Your task to perform on an android device: turn on data saver in the chrome app Image 0: 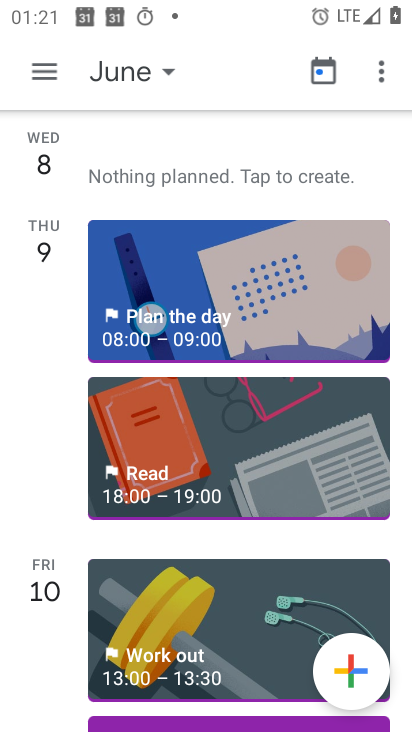
Step 0: press home button
Your task to perform on an android device: turn on data saver in the chrome app Image 1: 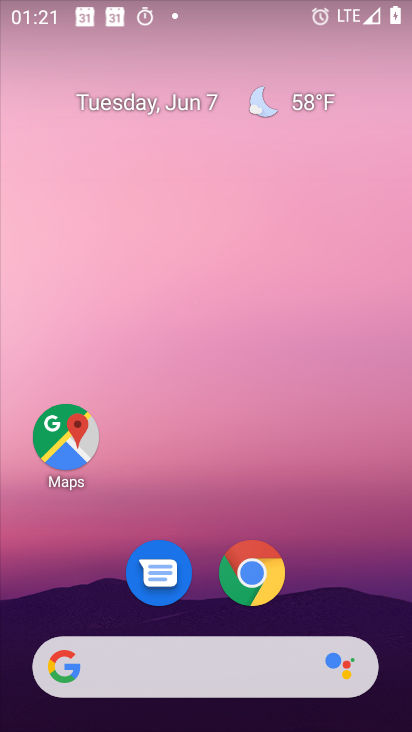
Step 1: click (260, 561)
Your task to perform on an android device: turn on data saver in the chrome app Image 2: 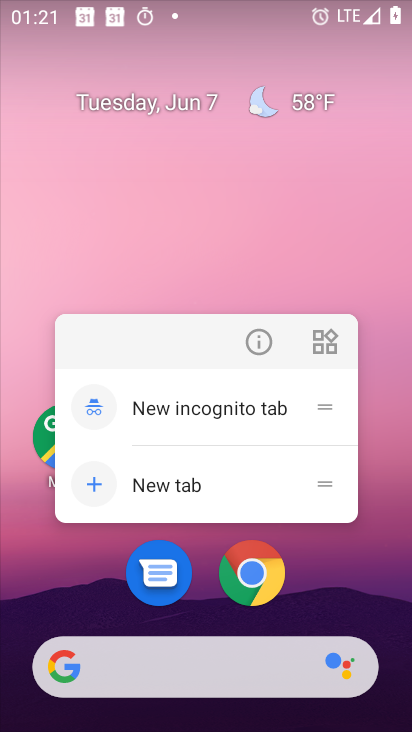
Step 2: click (246, 576)
Your task to perform on an android device: turn on data saver in the chrome app Image 3: 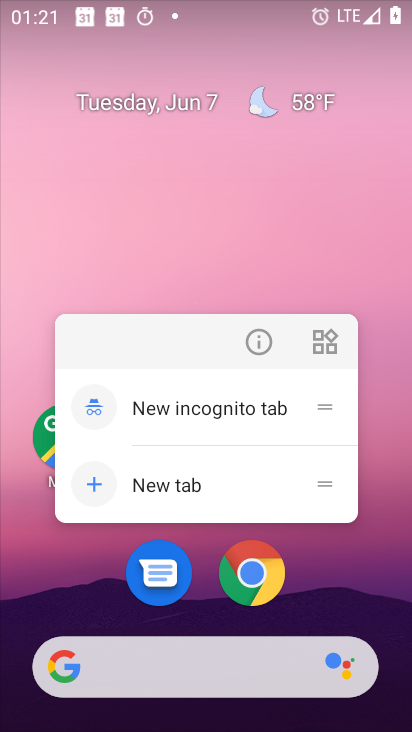
Step 3: click (291, 570)
Your task to perform on an android device: turn on data saver in the chrome app Image 4: 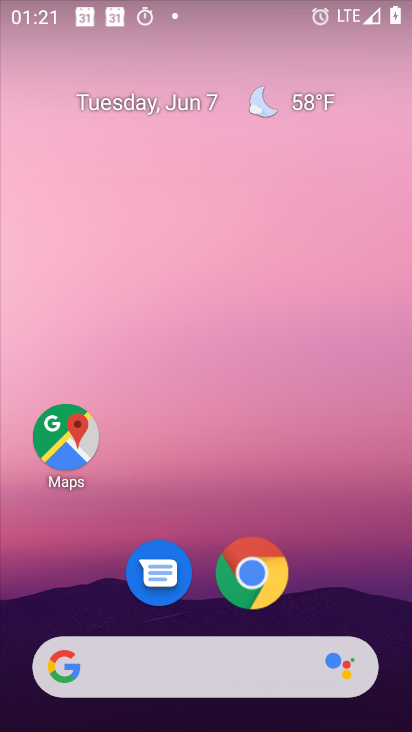
Step 4: drag from (295, 597) to (317, 120)
Your task to perform on an android device: turn on data saver in the chrome app Image 5: 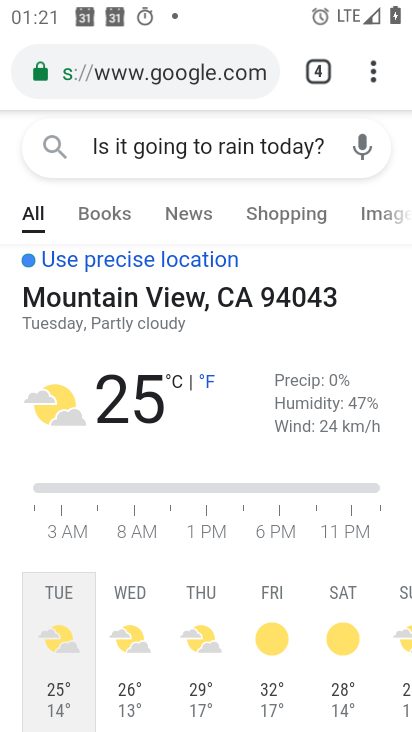
Step 5: drag from (373, 68) to (151, 569)
Your task to perform on an android device: turn on data saver in the chrome app Image 6: 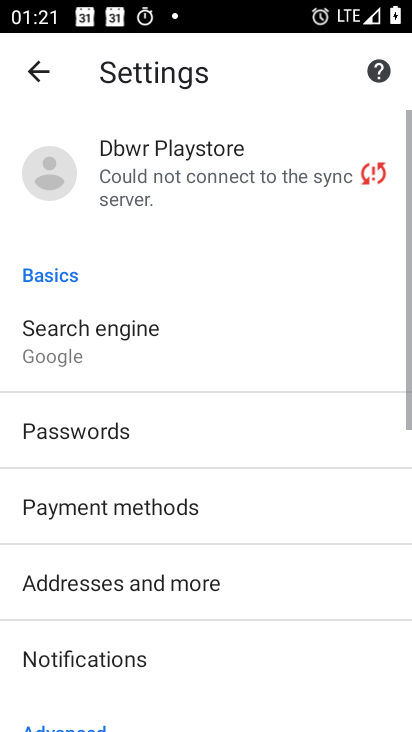
Step 6: drag from (185, 657) to (240, 237)
Your task to perform on an android device: turn on data saver in the chrome app Image 7: 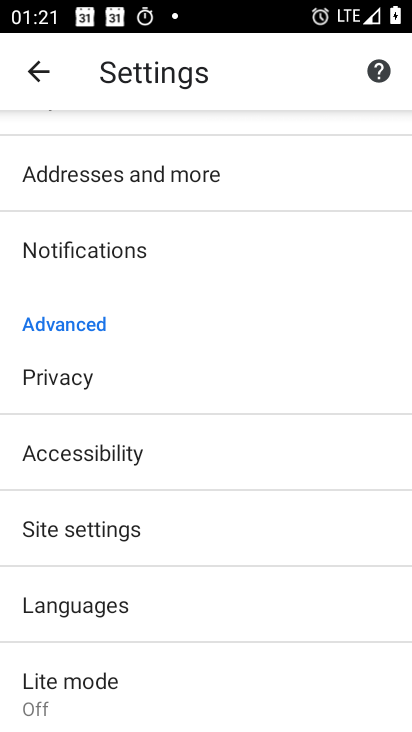
Step 7: click (59, 679)
Your task to perform on an android device: turn on data saver in the chrome app Image 8: 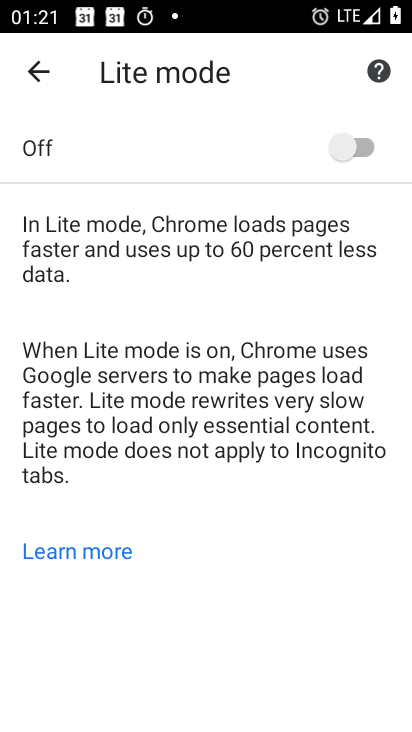
Step 8: click (333, 139)
Your task to perform on an android device: turn on data saver in the chrome app Image 9: 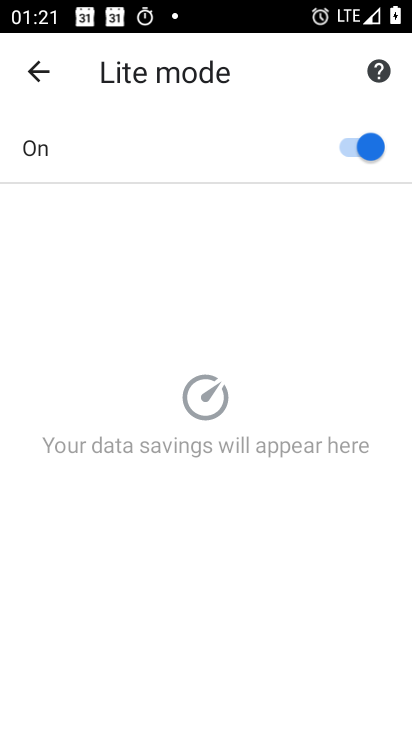
Step 9: task complete